Your task to perform on an android device: Search for good Italian restaurants Image 0: 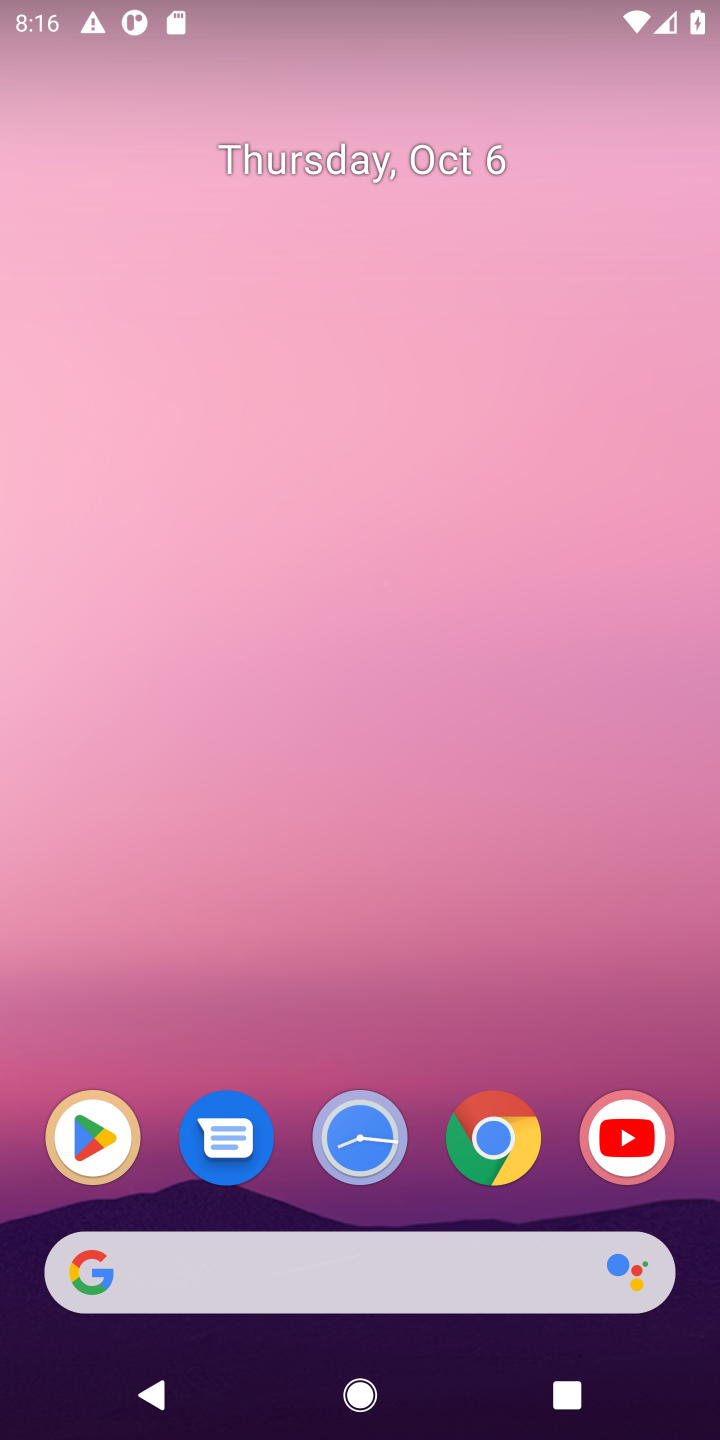
Step 0: drag from (281, 1177) to (549, 4)
Your task to perform on an android device: Search for good Italian restaurants Image 1: 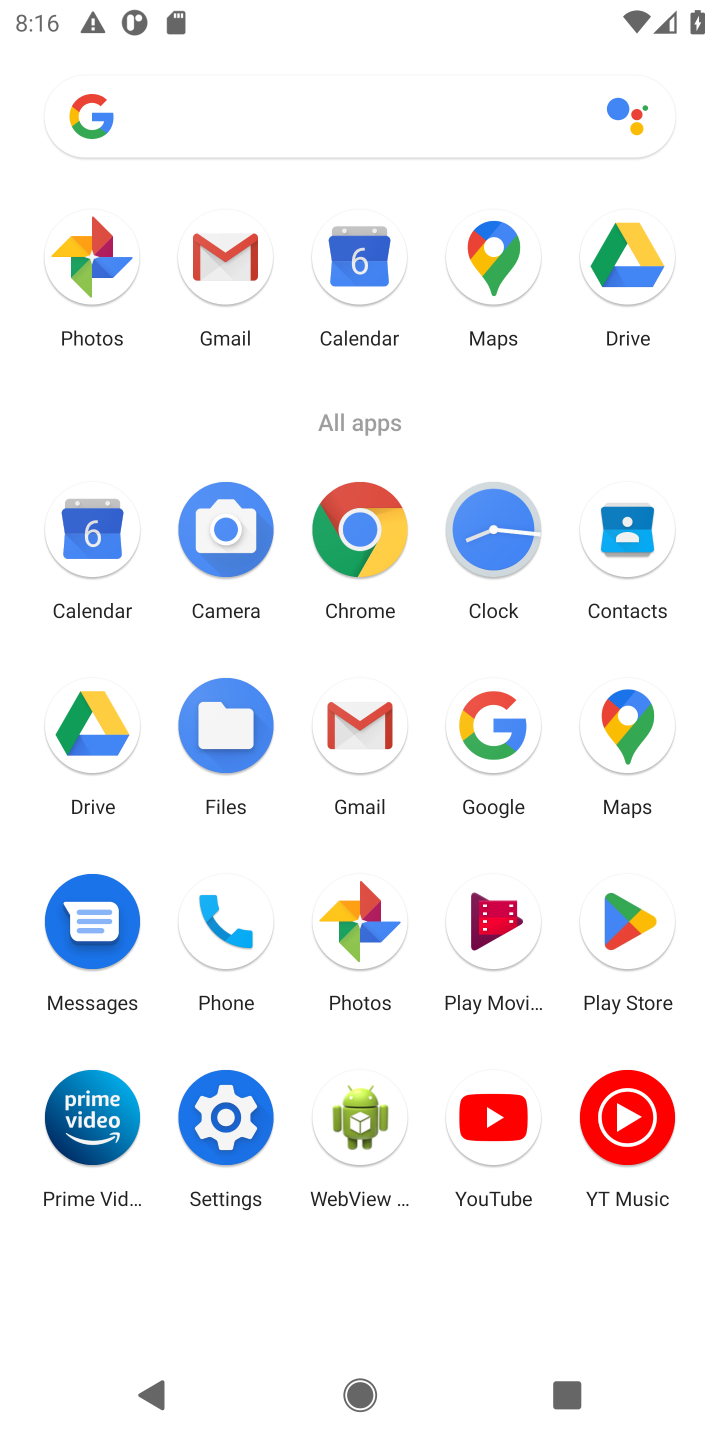
Step 1: click (628, 762)
Your task to perform on an android device: Search for good Italian restaurants Image 2: 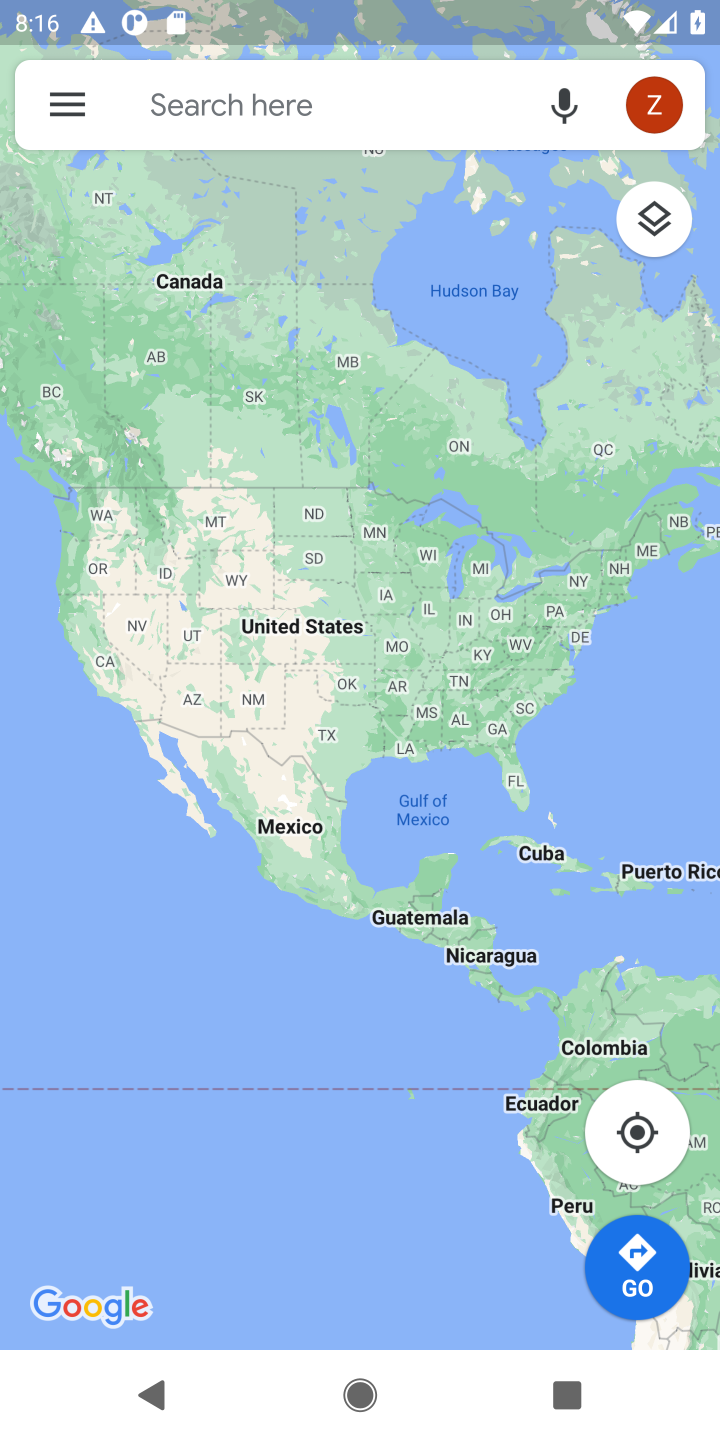
Step 2: click (286, 78)
Your task to perform on an android device: Search for good Italian restaurants Image 3: 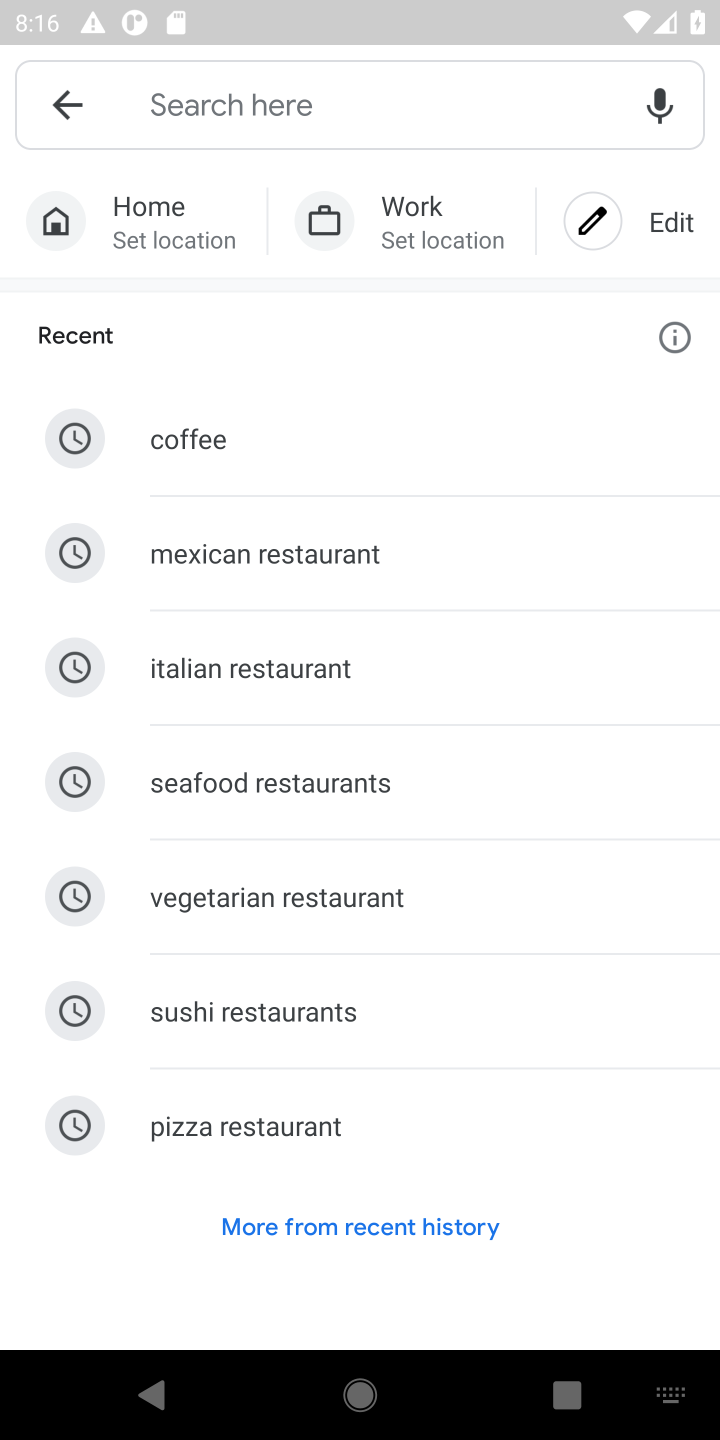
Step 3: type "good Italian restaurants"
Your task to perform on an android device: Search for good Italian restaurants Image 4: 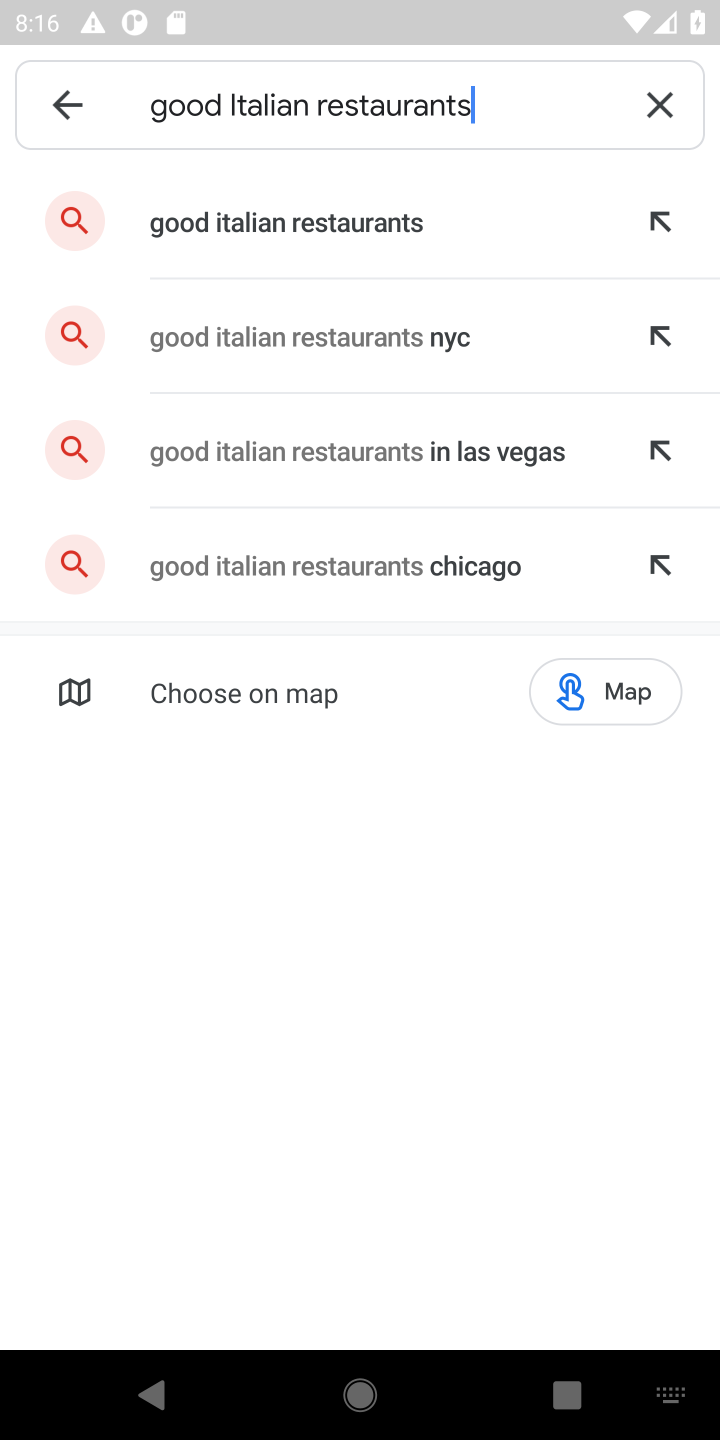
Step 4: click (409, 205)
Your task to perform on an android device: Search for good Italian restaurants Image 5: 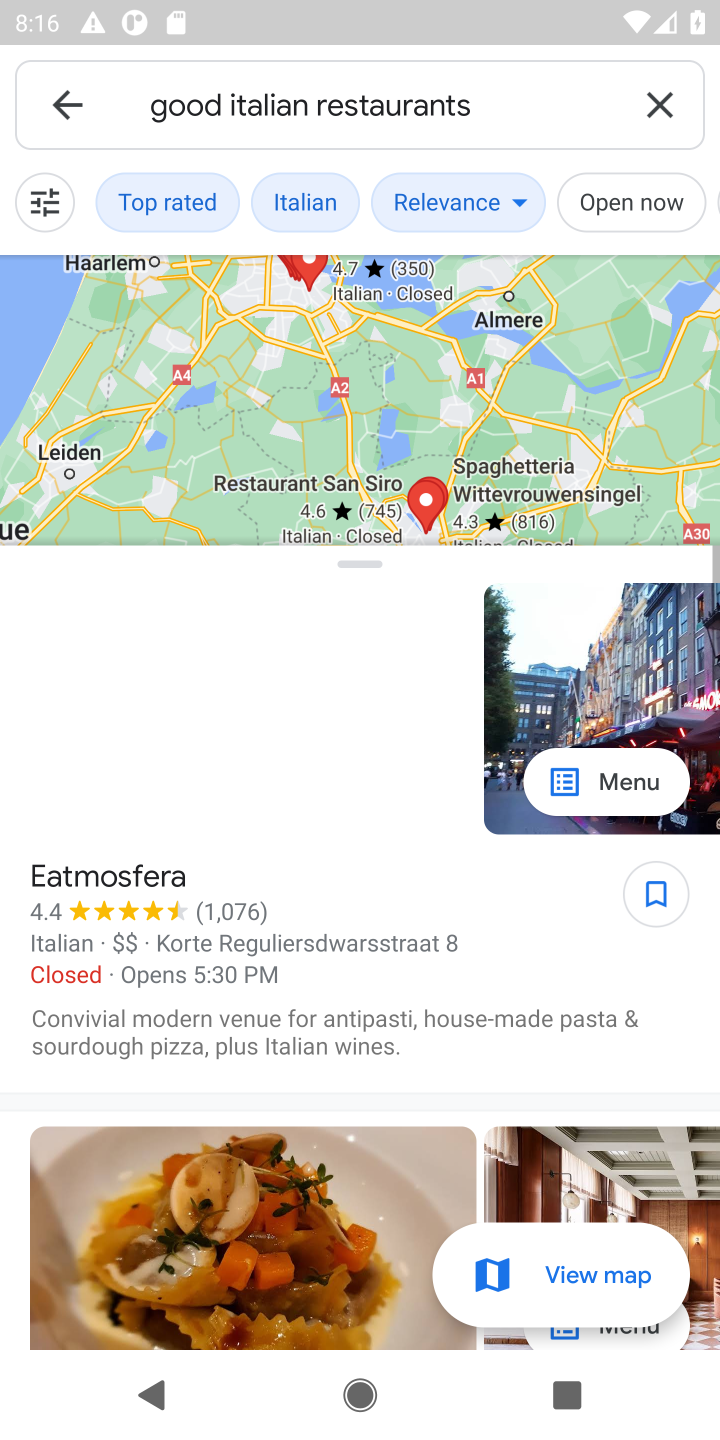
Step 5: task complete